Your task to perform on an android device: open device folders in google photos Image 0: 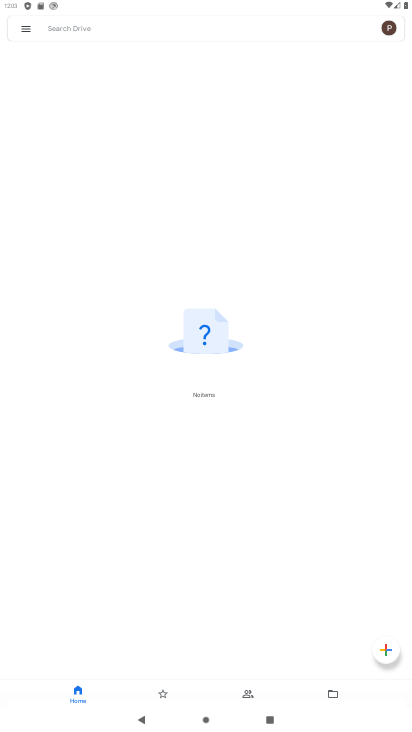
Step 0: press home button
Your task to perform on an android device: open device folders in google photos Image 1: 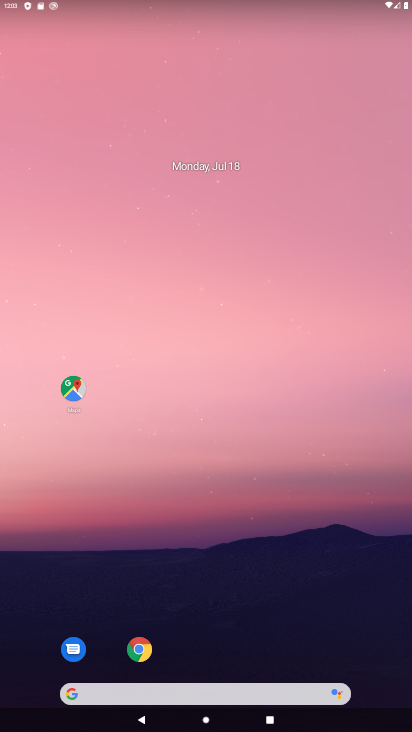
Step 1: drag from (189, 653) to (182, 223)
Your task to perform on an android device: open device folders in google photos Image 2: 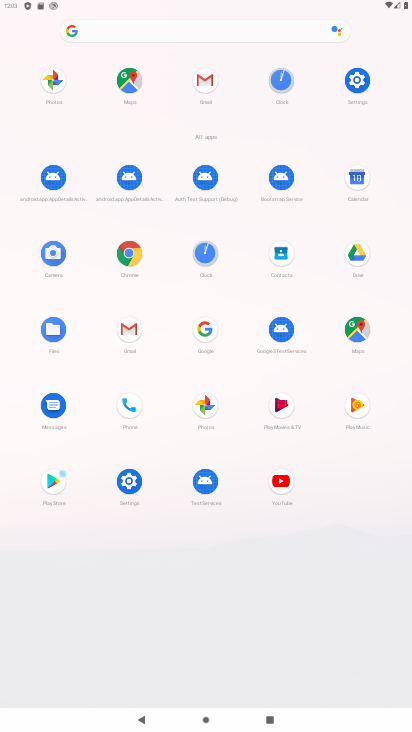
Step 2: click (200, 409)
Your task to perform on an android device: open device folders in google photos Image 3: 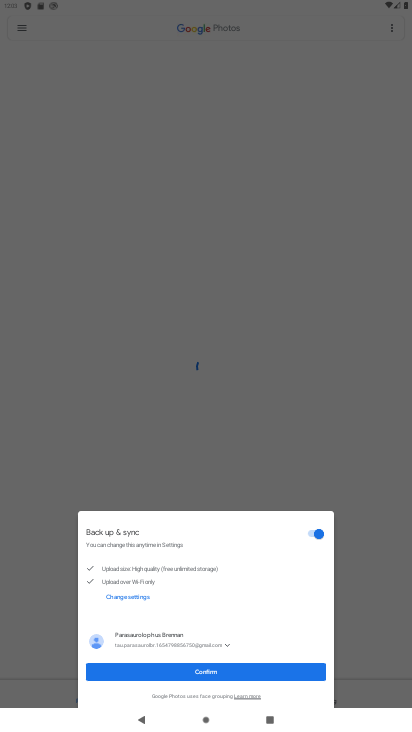
Step 3: click (200, 669)
Your task to perform on an android device: open device folders in google photos Image 4: 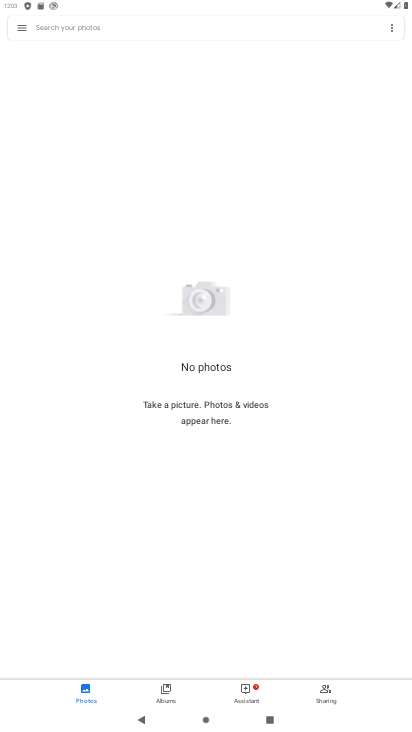
Step 4: click (15, 29)
Your task to perform on an android device: open device folders in google photos Image 5: 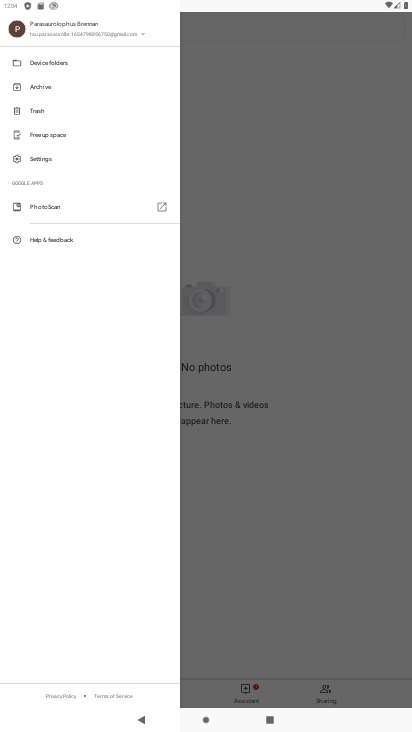
Step 5: click (43, 69)
Your task to perform on an android device: open device folders in google photos Image 6: 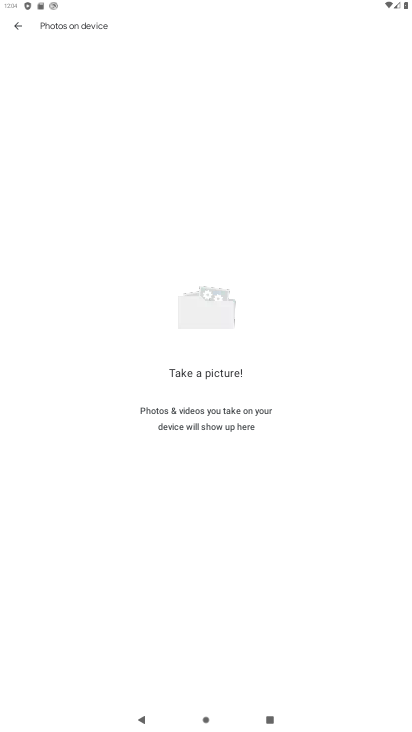
Step 6: task complete